Your task to perform on an android device: toggle notifications settings in the gmail app Image 0: 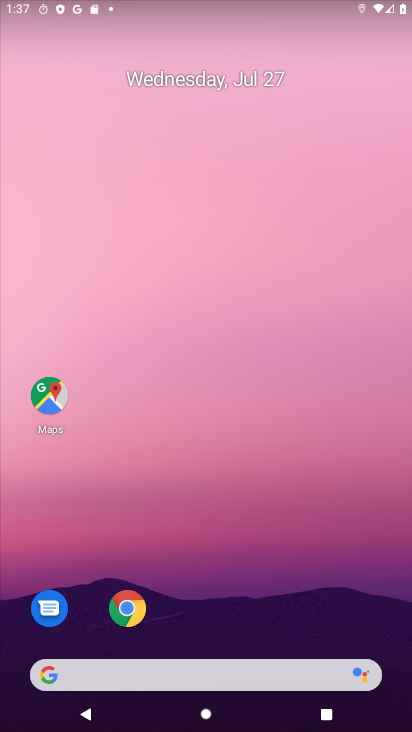
Step 0: click (256, 77)
Your task to perform on an android device: toggle notifications settings in the gmail app Image 1: 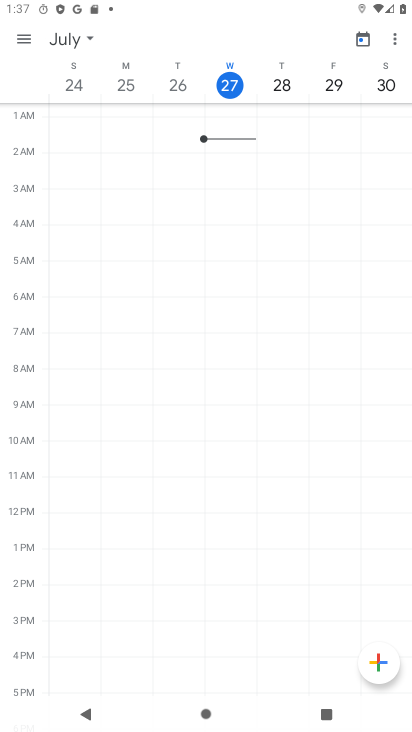
Step 1: press home button
Your task to perform on an android device: toggle notifications settings in the gmail app Image 2: 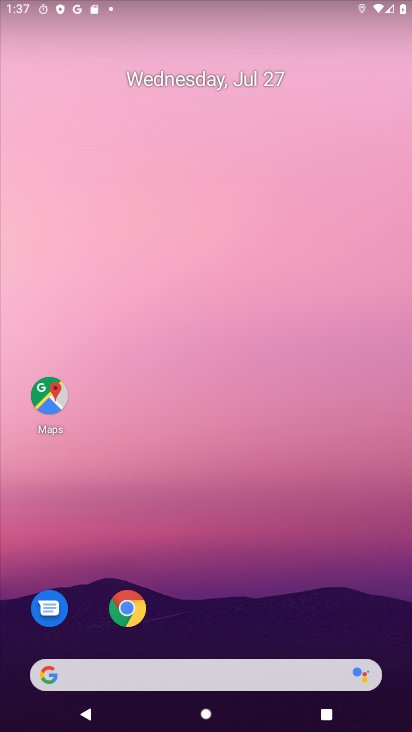
Step 2: drag from (174, 639) to (206, 166)
Your task to perform on an android device: toggle notifications settings in the gmail app Image 3: 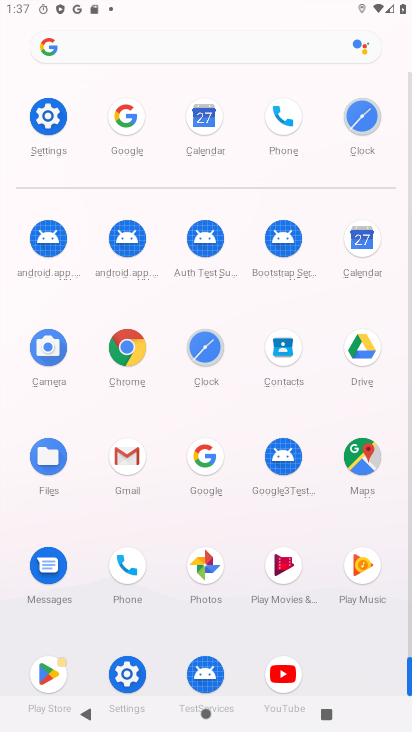
Step 3: click (55, 132)
Your task to perform on an android device: toggle notifications settings in the gmail app Image 4: 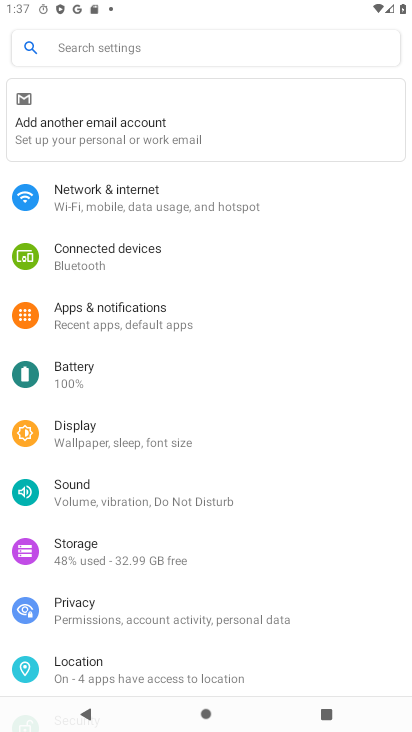
Step 4: click (77, 317)
Your task to perform on an android device: toggle notifications settings in the gmail app Image 5: 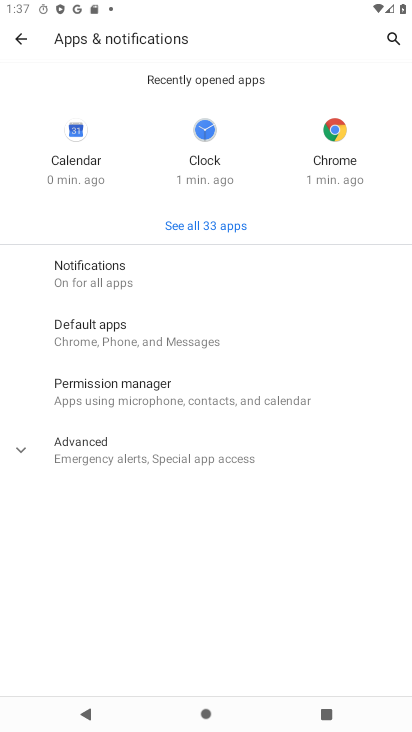
Step 5: click (91, 273)
Your task to perform on an android device: toggle notifications settings in the gmail app Image 6: 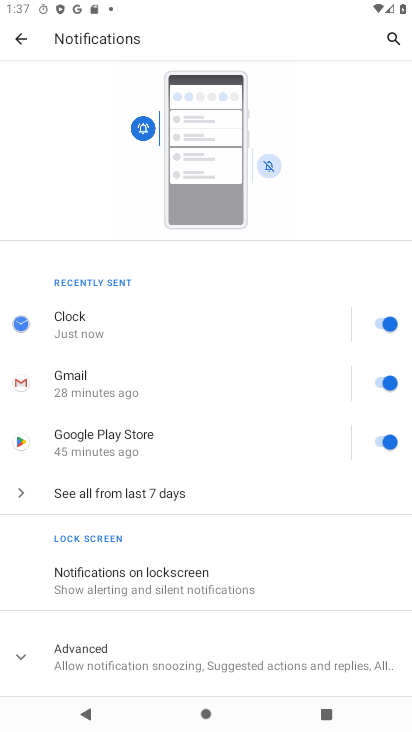
Step 6: drag from (123, 606) to (132, 300)
Your task to perform on an android device: toggle notifications settings in the gmail app Image 7: 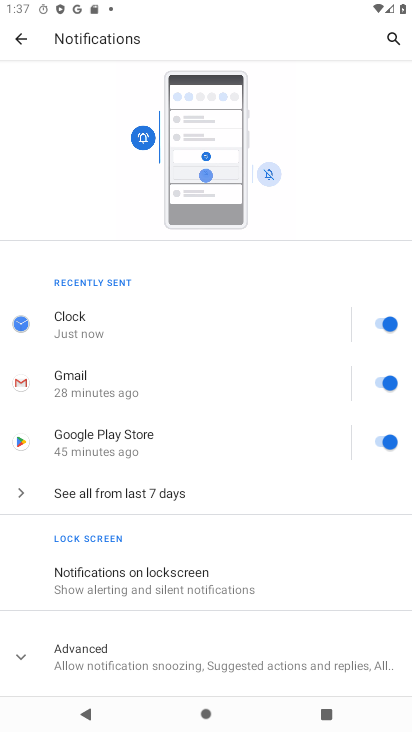
Step 7: click (100, 582)
Your task to perform on an android device: toggle notifications settings in the gmail app Image 8: 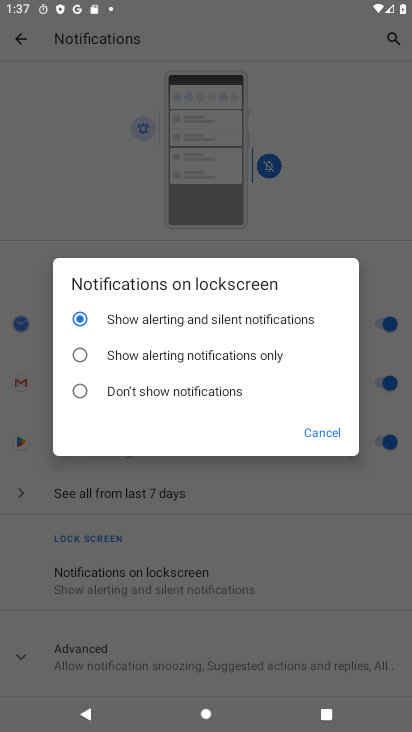
Step 8: click (79, 388)
Your task to perform on an android device: toggle notifications settings in the gmail app Image 9: 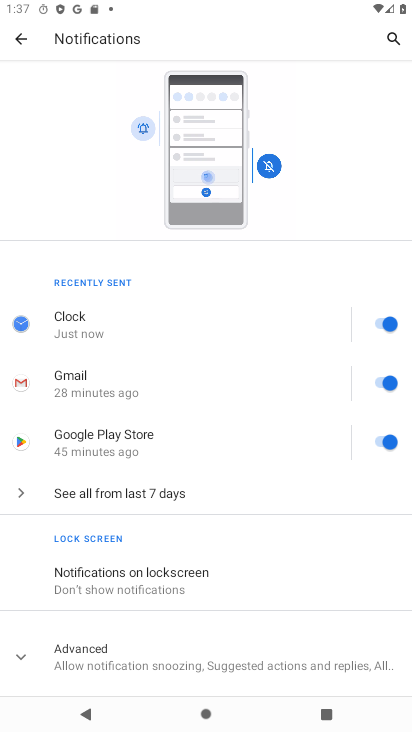
Step 9: task complete